Your task to perform on an android device: install app "DoorDash - Food Delivery" Image 0: 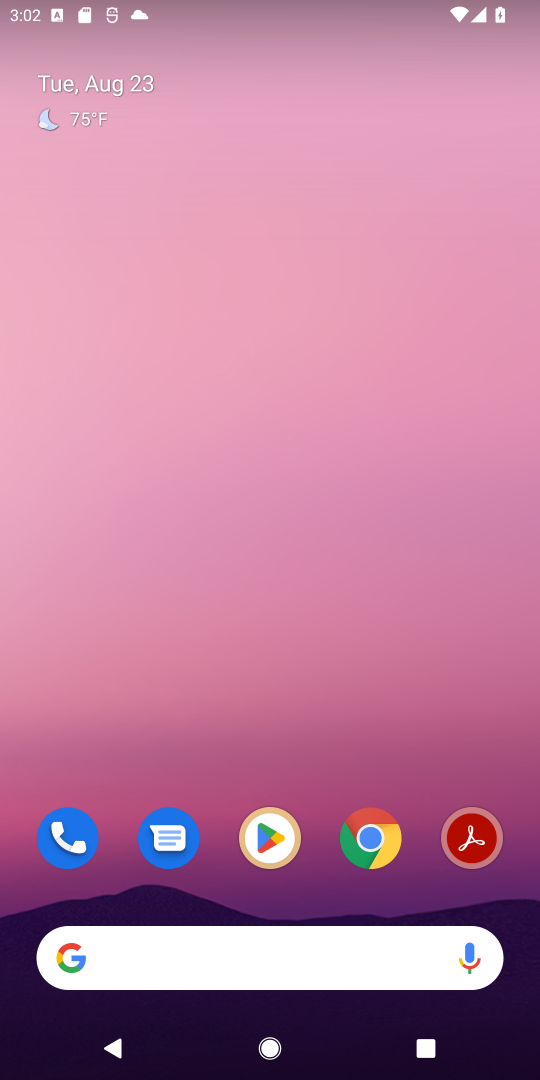
Step 0: click (261, 850)
Your task to perform on an android device: install app "DoorDash - Food Delivery" Image 1: 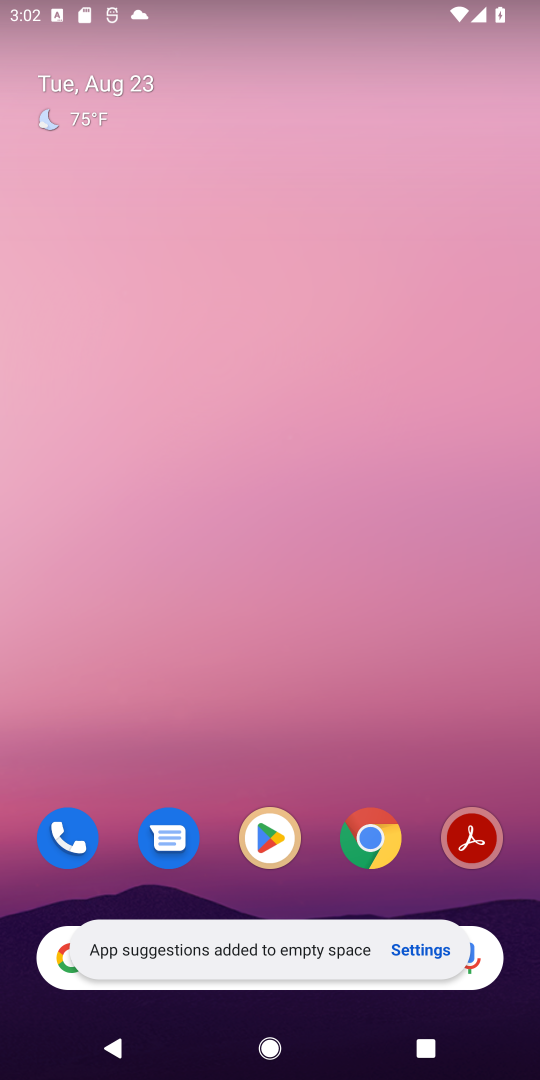
Step 1: click (282, 826)
Your task to perform on an android device: install app "DoorDash - Food Delivery" Image 2: 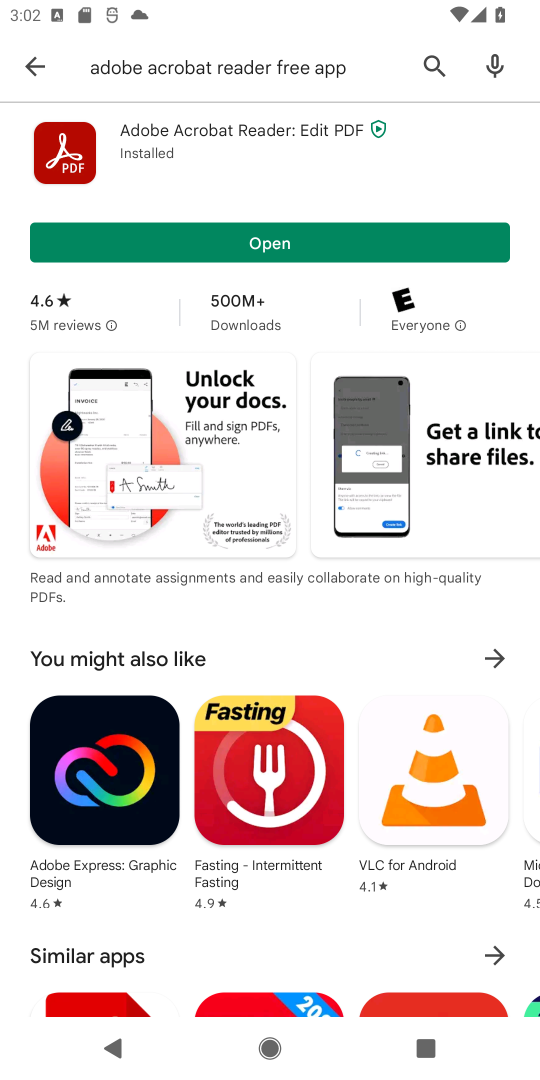
Step 2: click (36, 76)
Your task to perform on an android device: install app "DoorDash - Food Delivery" Image 3: 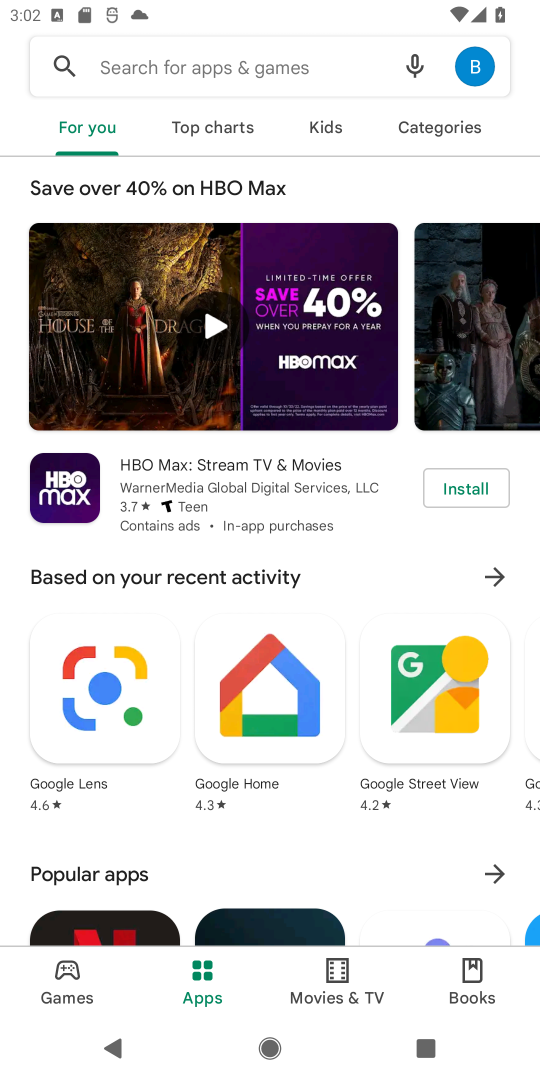
Step 3: click (159, 68)
Your task to perform on an android device: install app "DoorDash - Food Delivery" Image 4: 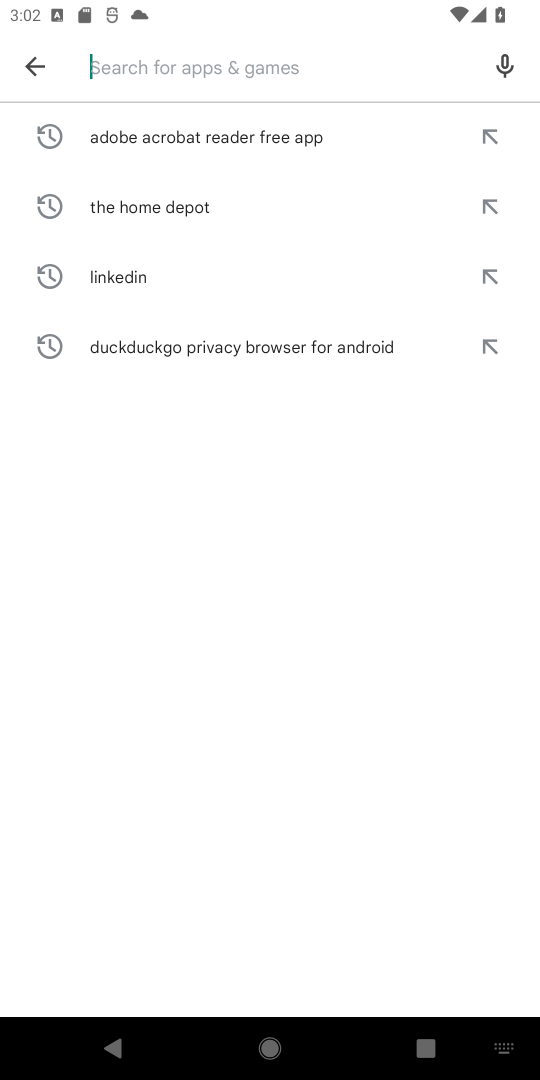
Step 4: type "DoorDash - Food Delivery"
Your task to perform on an android device: install app "DoorDash - Food Delivery" Image 5: 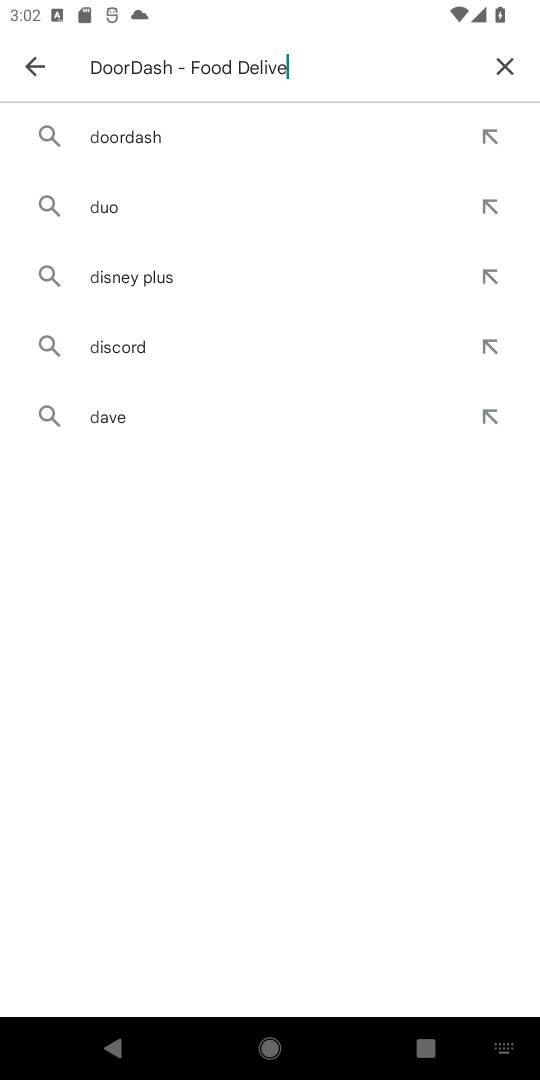
Step 5: type ""
Your task to perform on an android device: install app "DoorDash - Food Delivery" Image 6: 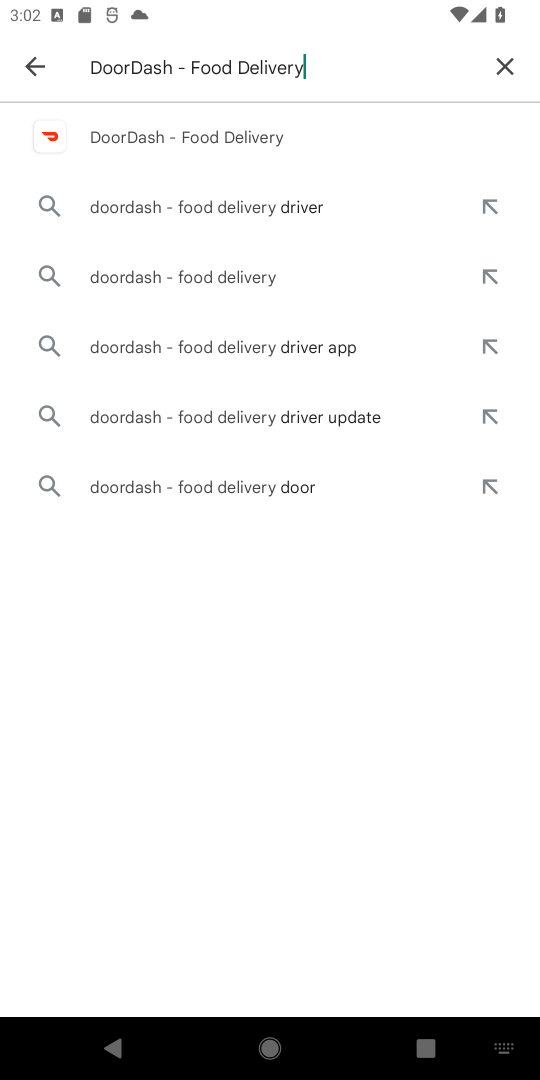
Step 6: click (174, 135)
Your task to perform on an android device: install app "DoorDash - Food Delivery" Image 7: 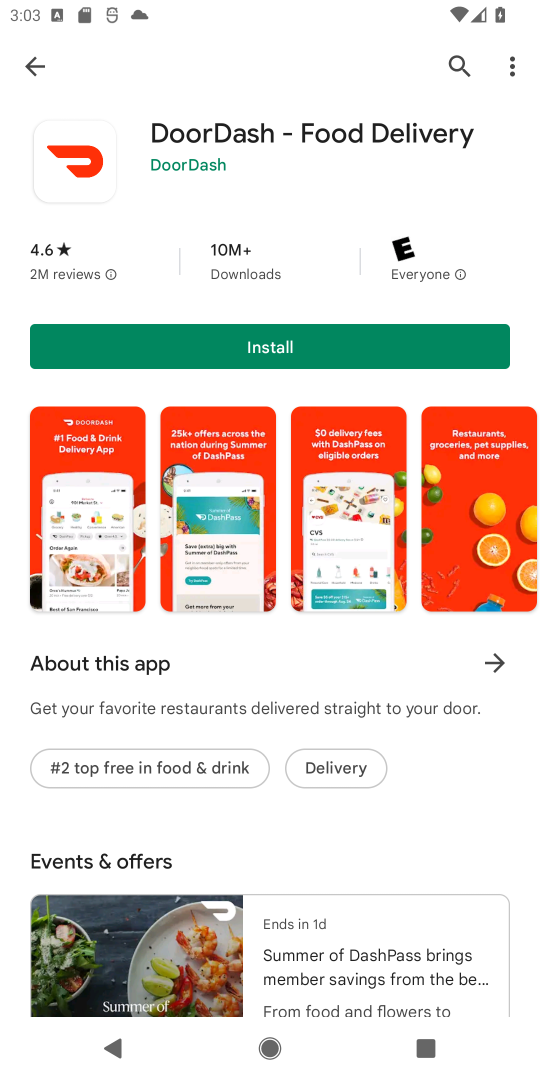
Step 7: click (302, 352)
Your task to perform on an android device: install app "DoorDash - Food Delivery" Image 8: 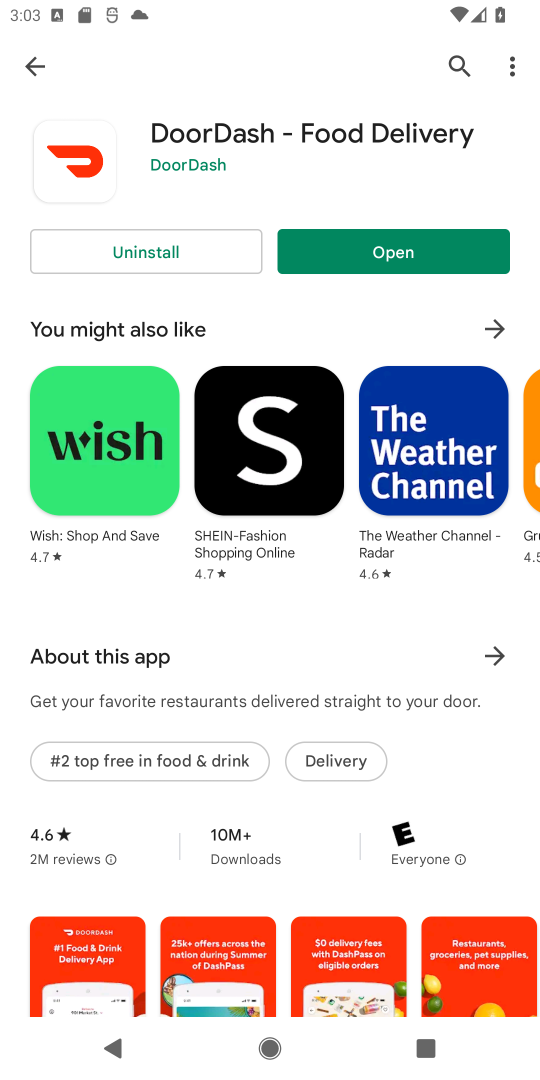
Step 8: click (412, 259)
Your task to perform on an android device: install app "DoorDash - Food Delivery" Image 9: 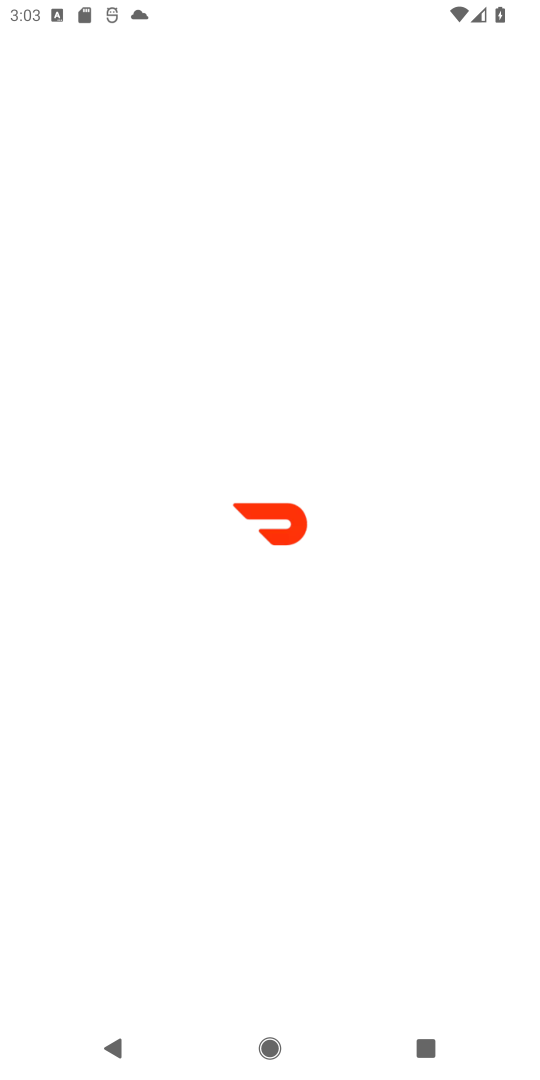
Step 9: task complete